Your task to perform on an android device: open chrome and create a bookmark for the current page Image 0: 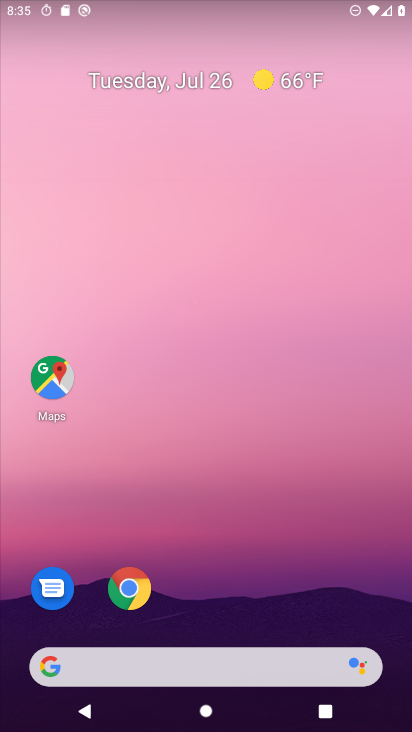
Step 0: click (125, 589)
Your task to perform on an android device: open chrome and create a bookmark for the current page Image 1: 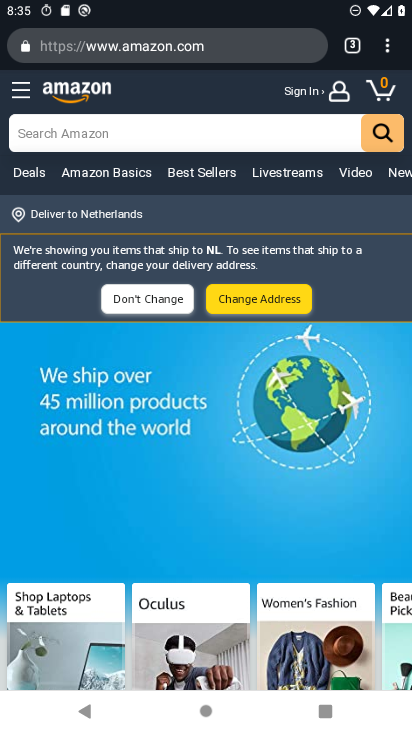
Step 1: click (386, 54)
Your task to perform on an android device: open chrome and create a bookmark for the current page Image 2: 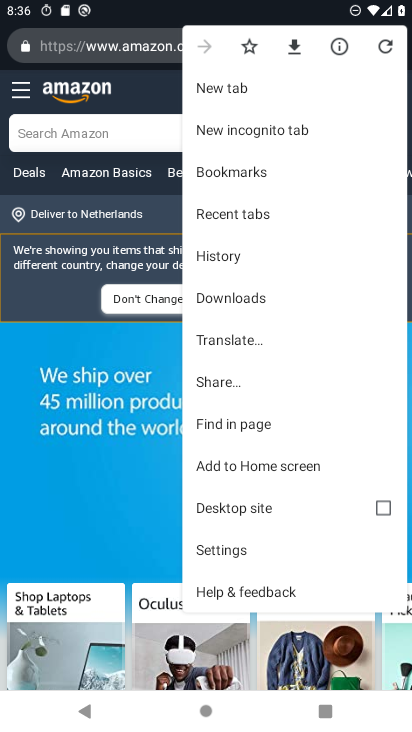
Step 2: click (245, 41)
Your task to perform on an android device: open chrome and create a bookmark for the current page Image 3: 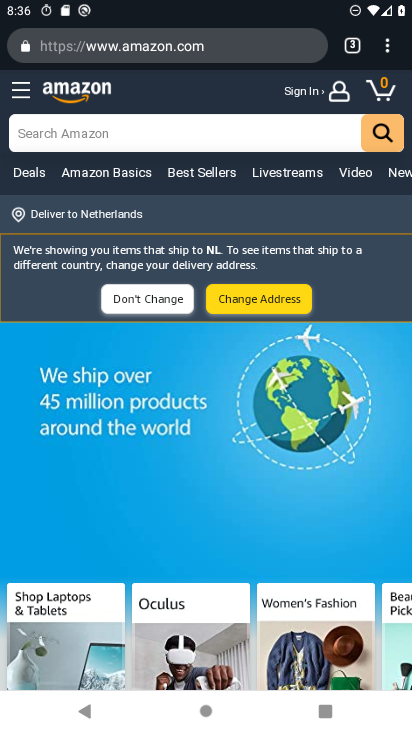
Step 3: task complete